Your task to perform on an android device: change the clock style Image 0: 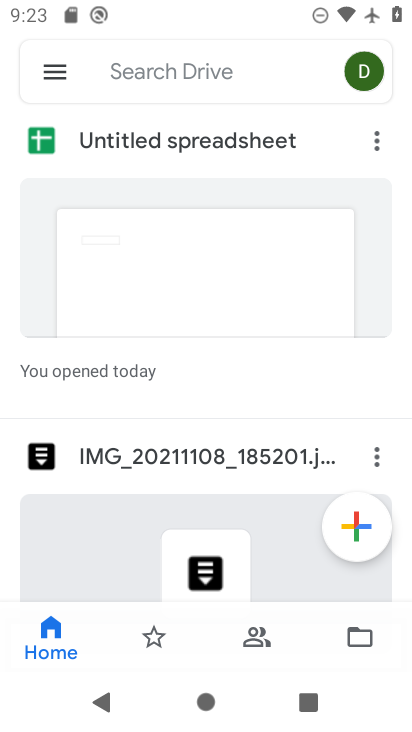
Step 0: press home button
Your task to perform on an android device: change the clock style Image 1: 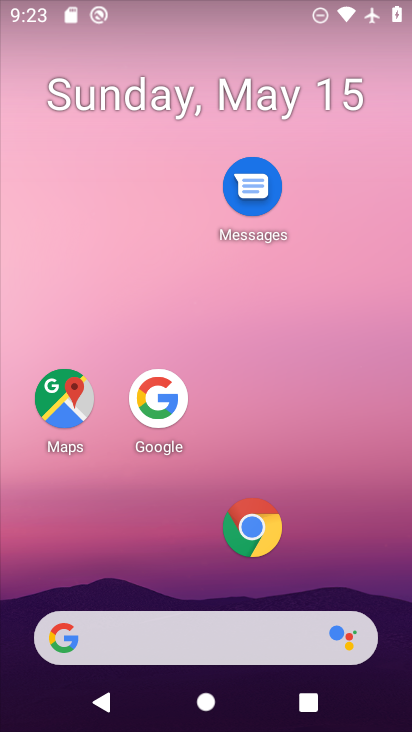
Step 1: drag from (166, 650) to (364, 146)
Your task to perform on an android device: change the clock style Image 2: 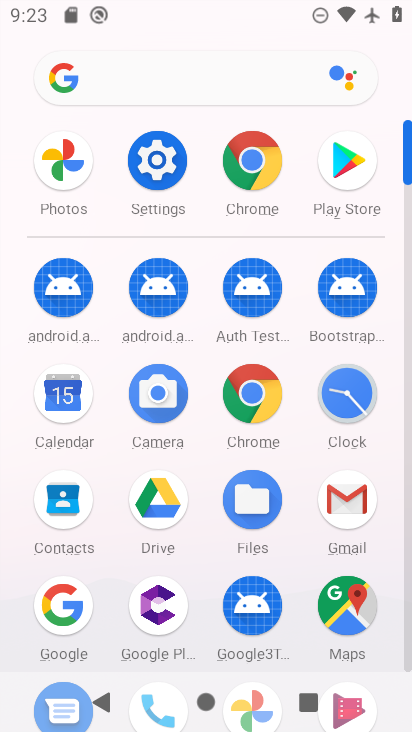
Step 2: click (349, 382)
Your task to perform on an android device: change the clock style Image 3: 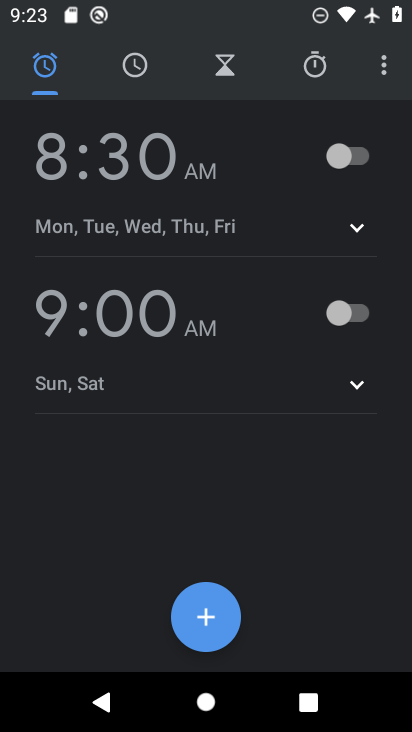
Step 3: click (383, 82)
Your task to perform on an android device: change the clock style Image 4: 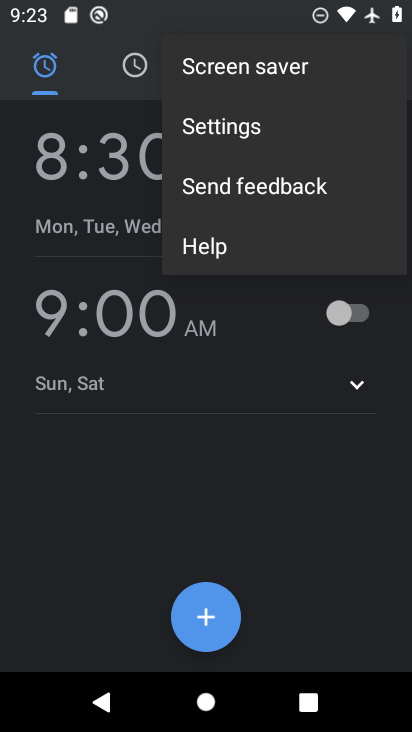
Step 4: click (257, 133)
Your task to perform on an android device: change the clock style Image 5: 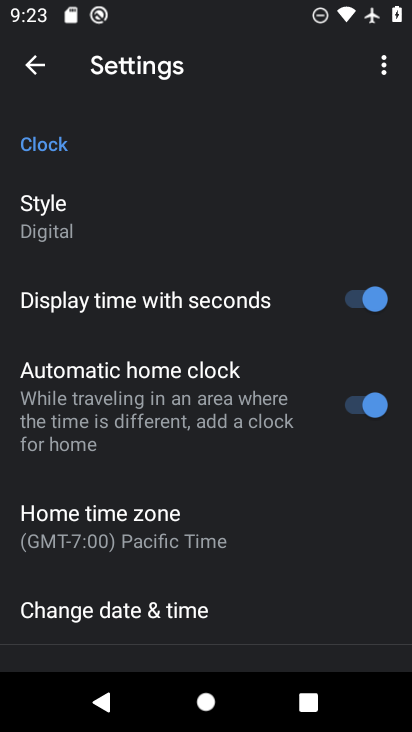
Step 5: click (73, 217)
Your task to perform on an android device: change the clock style Image 6: 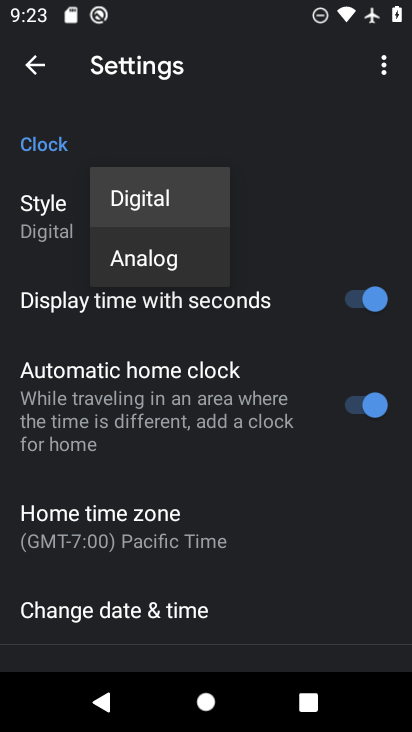
Step 6: click (172, 264)
Your task to perform on an android device: change the clock style Image 7: 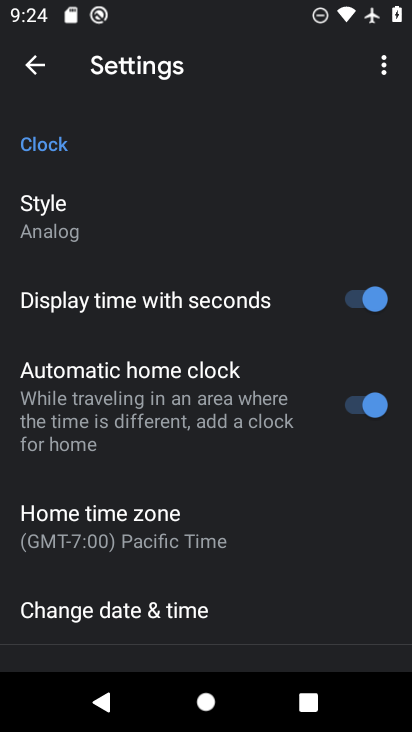
Step 7: task complete